Your task to perform on an android device: delete the emails in spam in the gmail app Image 0: 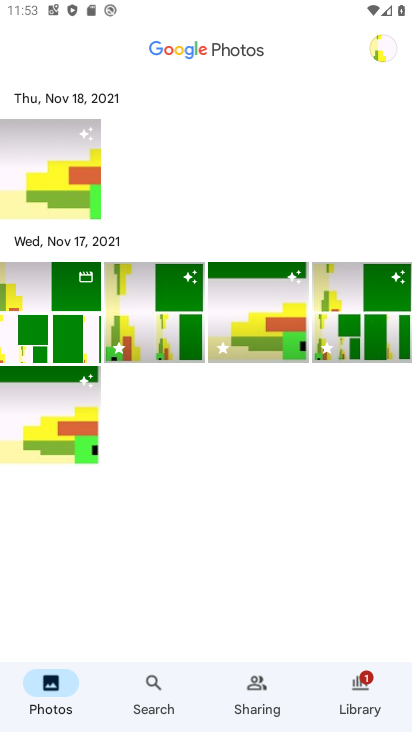
Step 0: press home button
Your task to perform on an android device: delete the emails in spam in the gmail app Image 1: 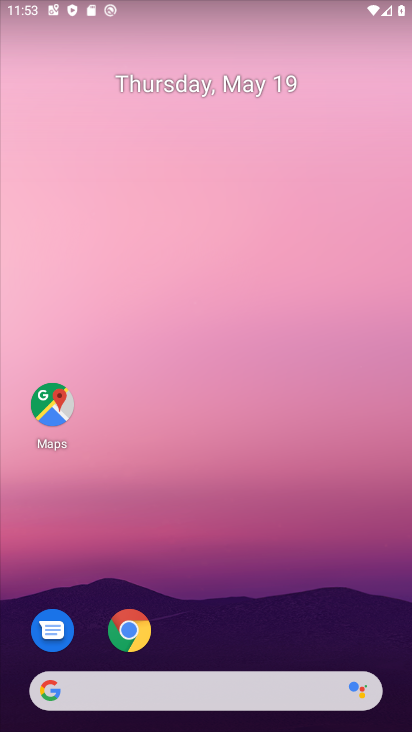
Step 1: drag from (263, 596) to (210, 107)
Your task to perform on an android device: delete the emails in spam in the gmail app Image 2: 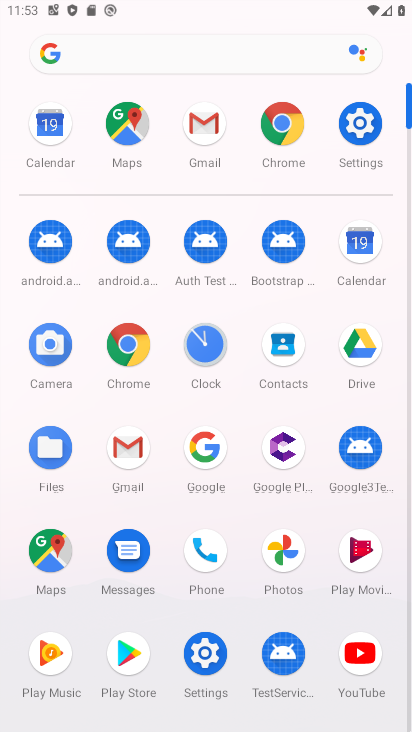
Step 2: click (206, 123)
Your task to perform on an android device: delete the emails in spam in the gmail app Image 3: 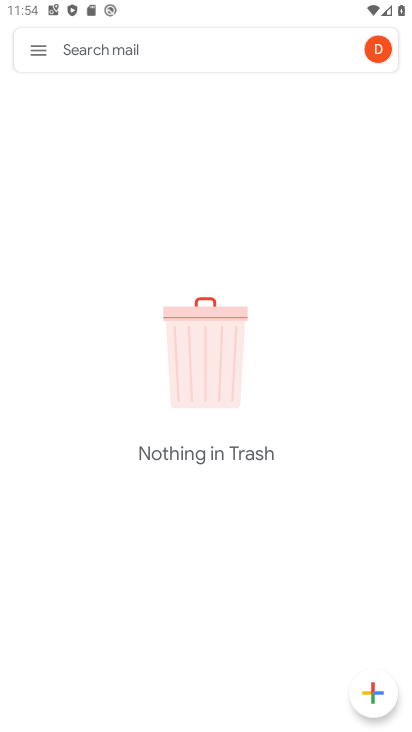
Step 3: click (30, 48)
Your task to perform on an android device: delete the emails in spam in the gmail app Image 4: 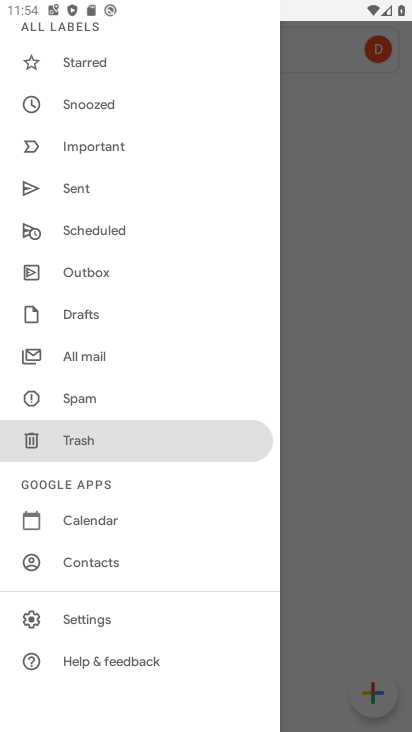
Step 4: click (78, 397)
Your task to perform on an android device: delete the emails in spam in the gmail app Image 5: 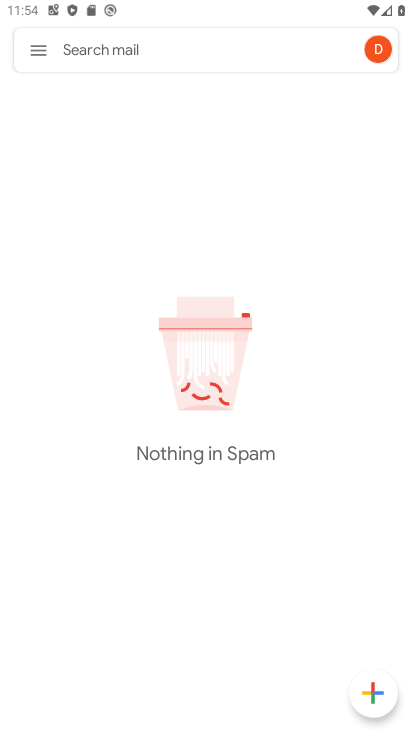
Step 5: task complete